Your task to perform on an android device: Open the Play Movies app and select the watchlist tab. Image 0: 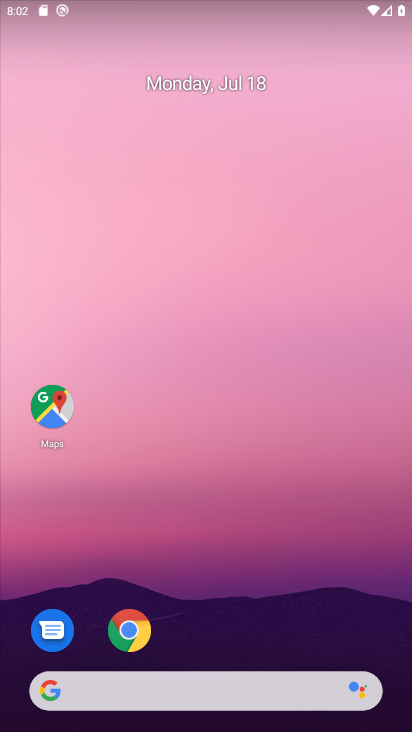
Step 0: drag from (178, 387) to (183, 176)
Your task to perform on an android device: Open the Play Movies app and select the watchlist tab. Image 1: 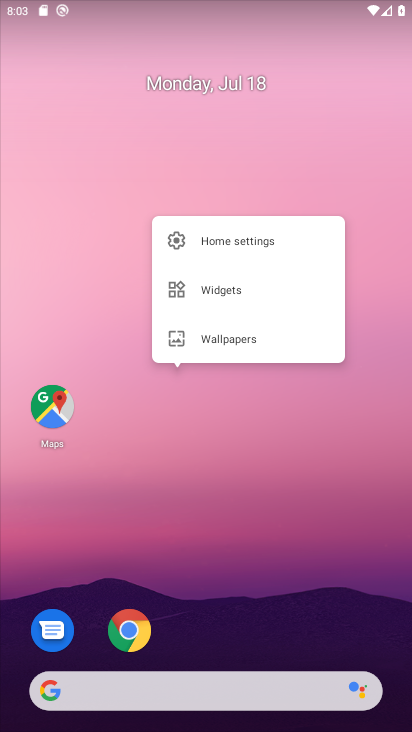
Step 1: click (188, 599)
Your task to perform on an android device: Open the Play Movies app and select the watchlist tab. Image 2: 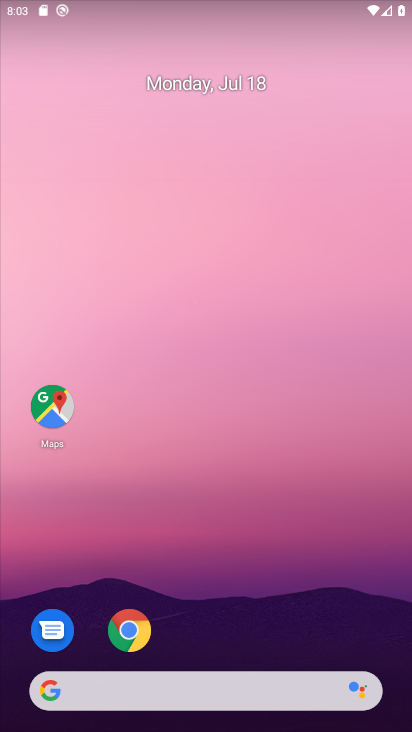
Step 2: drag from (200, 638) to (211, 107)
Your task to perform on an android device: Open the Play Movies app and select the watchlist tab. Image 3: 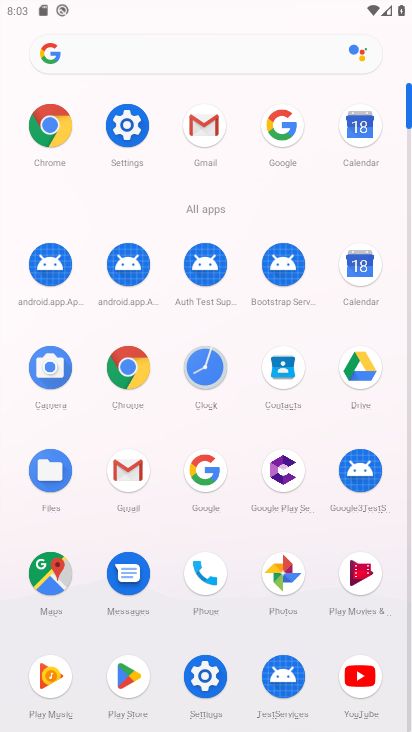
Step 3: click (355, 566)
Your task to perform on an android device: Open the Play Movies app and select the watchlist tab. Image 4: 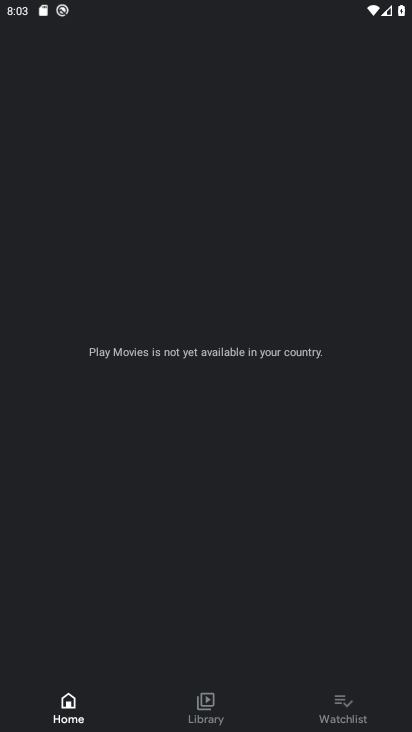
Step 4: task complete